Your task to perform on an android device: Open CNN.com Image 0: 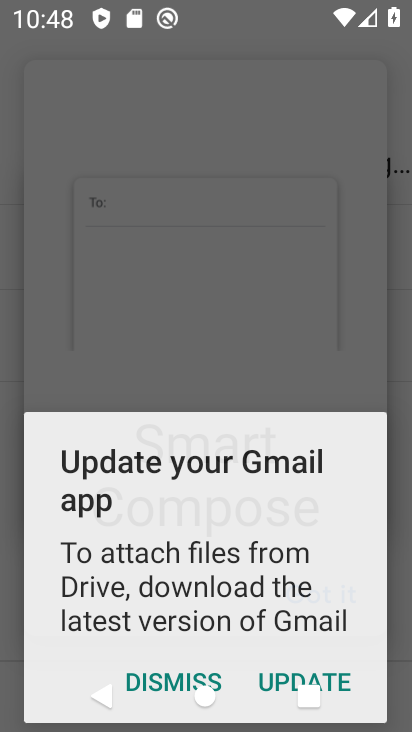
Step 0: click (336, 600)
Your task to perform on an android device: Open CNN.com Image 1: 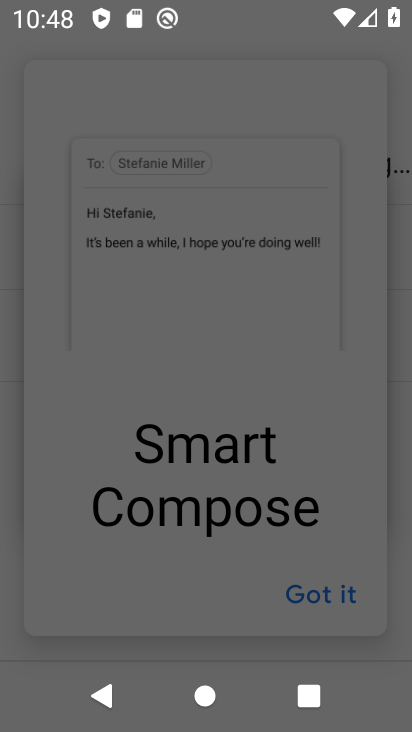
Step 1: press home button
Your task to perform on an android device: Open CNN.com Image 2: 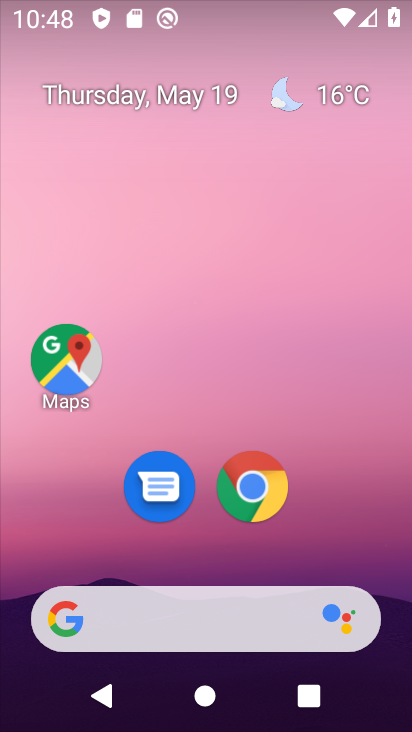
Step 2: click (287, 481)
Your task to perform on an android device: Open CNN.com Image 3: 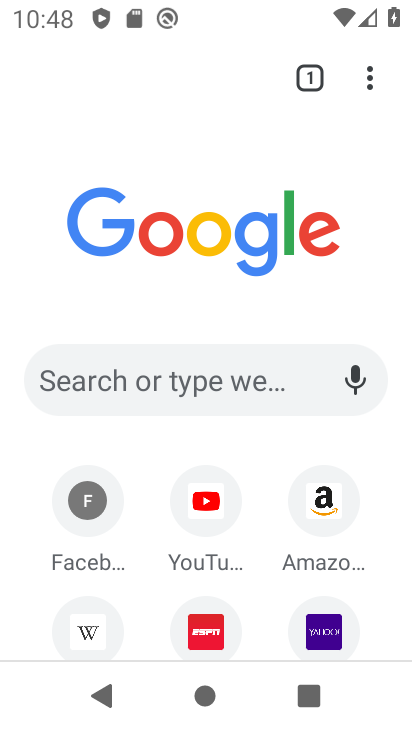
Step 3: click (185, 382)
Your task to perform on an android device: Open CNN.com Image 4: 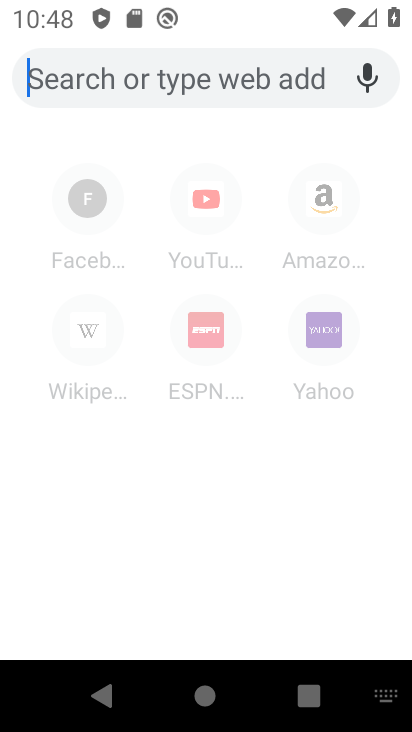
Step 4: type "cnn.com"
Your task to perform on an android device: Open CNN.com Image 5: 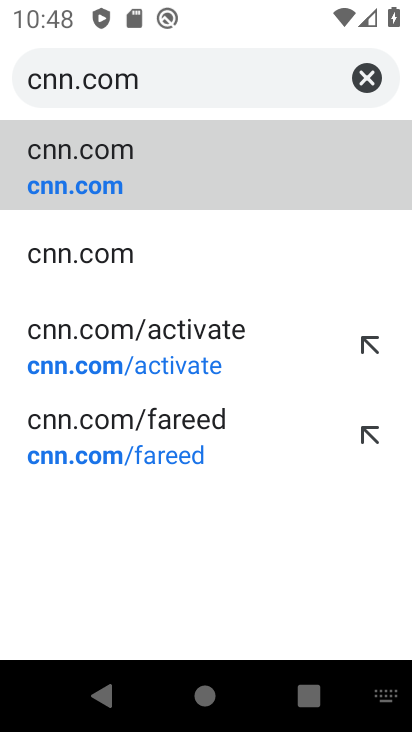
Step 5: click (174, 151)
Your task to perform on an android device: Open CNN.com Image 6: 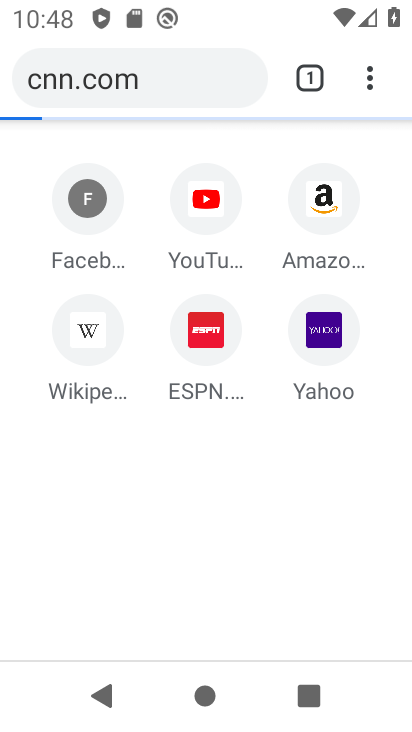
Step 6: task complete